Your task to perform on an android device: Go to Amazon Image 0: 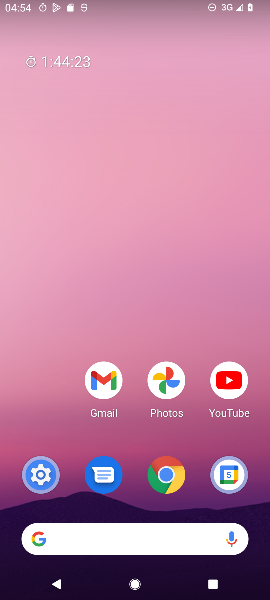
Step 0: press home button
Your task to perform on an android device: Go to Amazon Image 1: 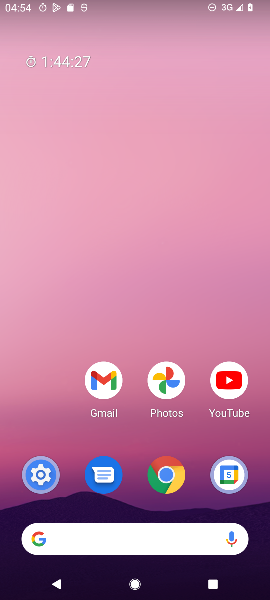
Step 1: drag from (67, 425) to (80, 173)
Your task to perform on an android device: Go to Amazon Image 2: 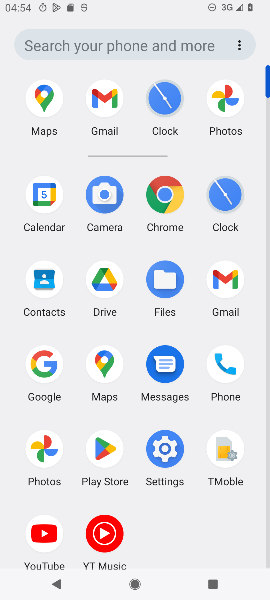
Step 2: click (166, 190)
Your task to perform on an android device: Go to Amazon Image 3: 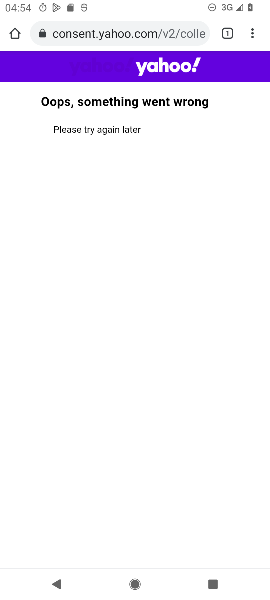
Step 3: click (149, 32)
Your task to perform on an android device: Go to Amazon Image 4: 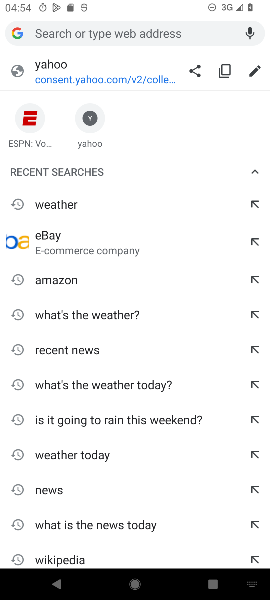
Step 4: type "amazon"
Your task to perform on an android device: Go to Amazon Image 5: 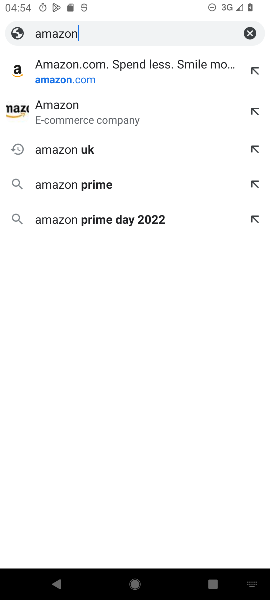
Step 5: click (105, 107)
Your task to perform on an android device: Go to Amazon Image 6: 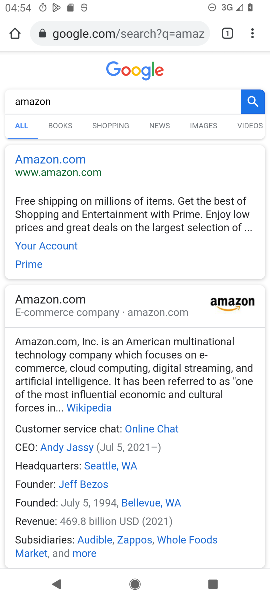
Step 6: task complete